Your task to perform on an android device: open chrome and create a bookmark for the current page Image 0: 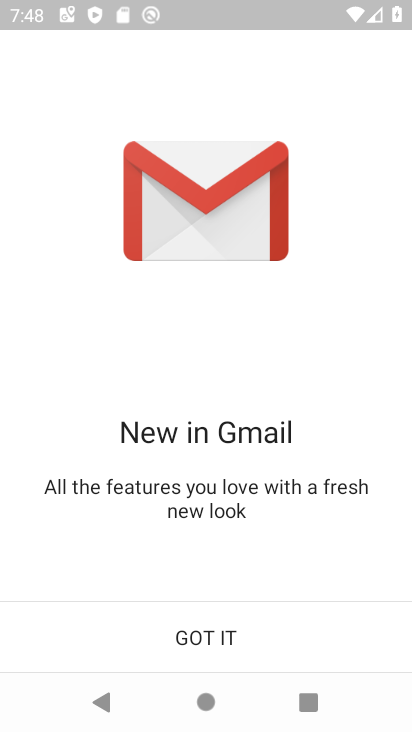
Step 0: press home button
Your task to perform on an android device: open chrome and create a bookmark for the current page Image 1: 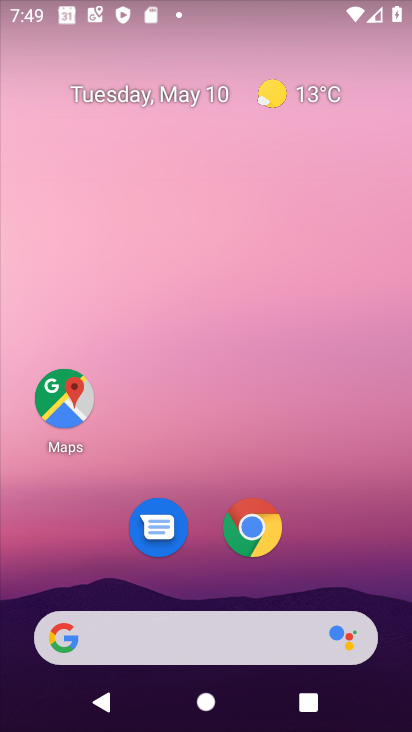
Step 1: click (255, 511)
Your task to perform on an android device: open chrome and create a bookmark for the current page Image 2: 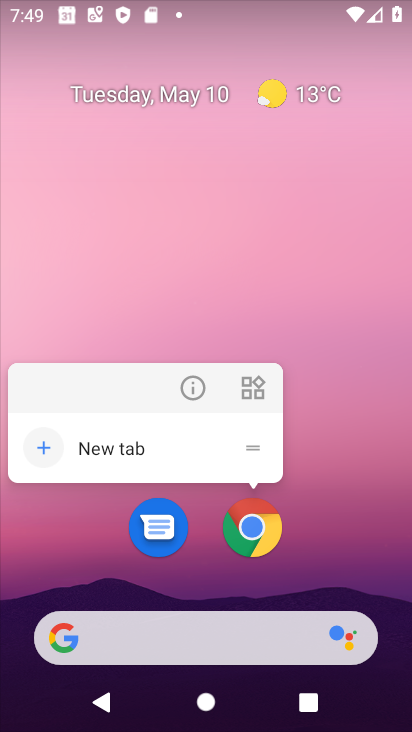
Step 2: click (186, 388)
Your task to perform on an android device: open chrome and create a bookmark for the current page Image 3: 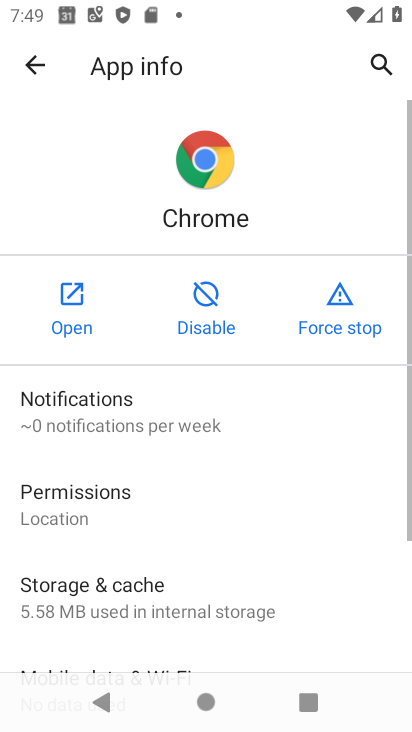
Step 3: click (75, 307)
Your task to perform on an android device: open chrome and create a bookmark for the current page Image 4: 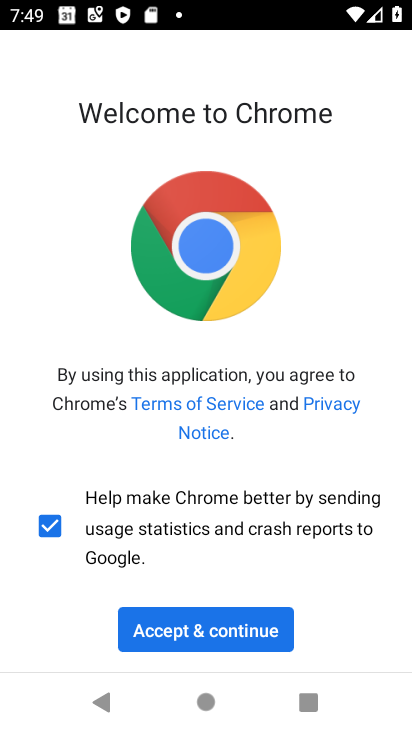
Step 4: click (150, 638)
Your task to perform on an android device: open chrome and create a bookmark for the current page Image 5: 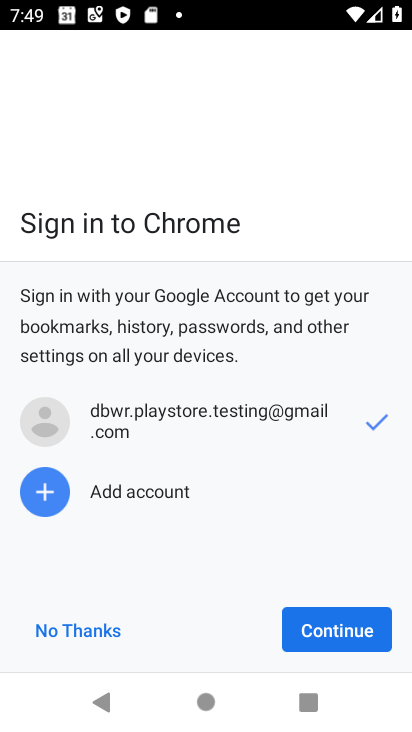
Step 5: click (69, 630)
Your task to perform on an android device: open chrome and create a bookmark for the current page Image 6: 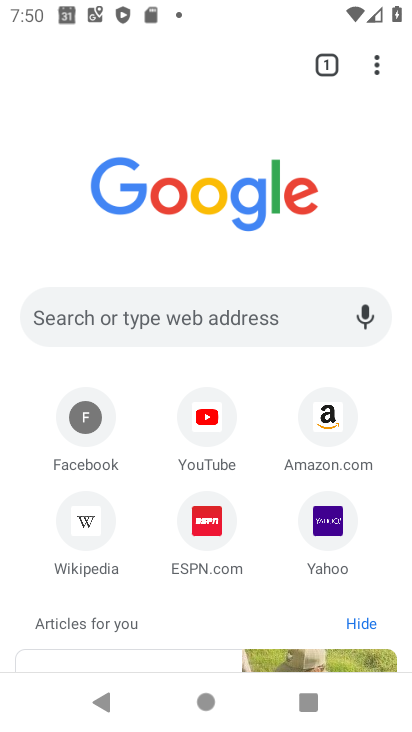
Step 6: click (380, 68)
Your task to perform on an android device: open chrome and create a bookmark for the current page Image 7: 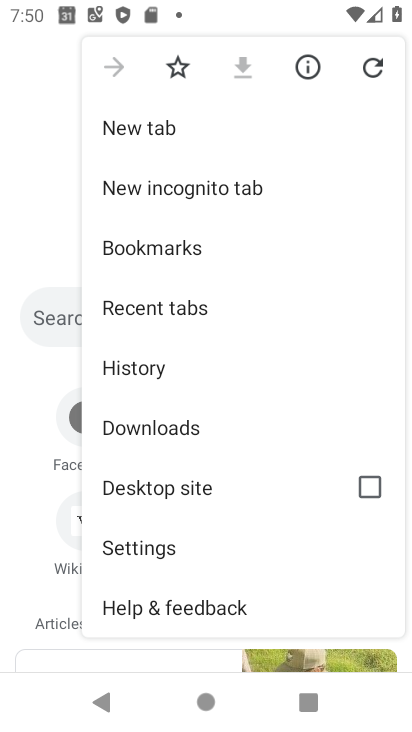
Step 7: click (183, 69)
Your task to perform on an android device: open chrome and create a bookmark for the current page Image 8: 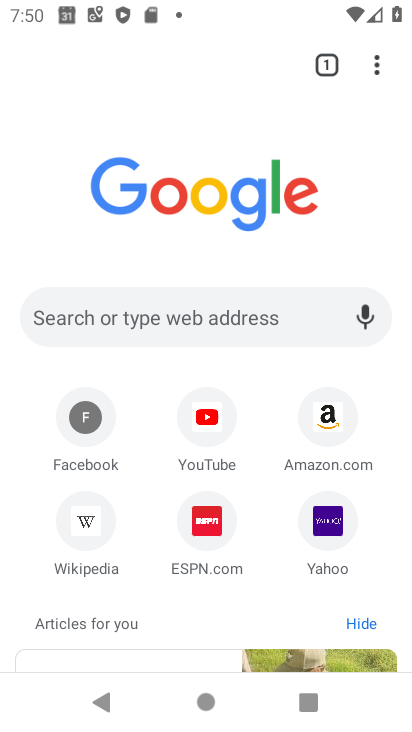
Step 8: task complete